Your task to perform on an android device: change the clock display to digital Image 0: 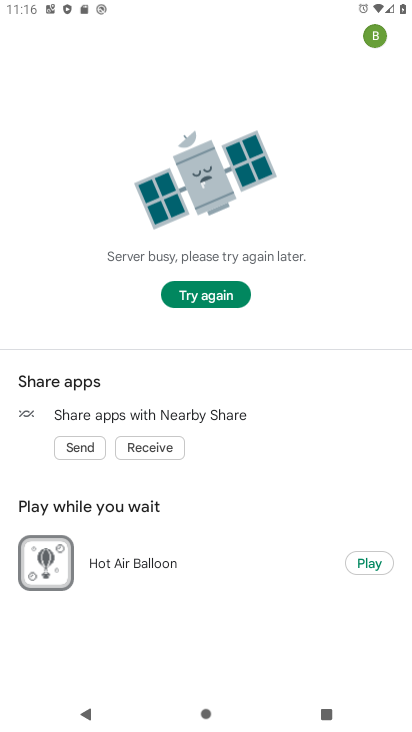
Step 0: press home button
Your task to perform on an android device: change the clock display to digital Image 1: 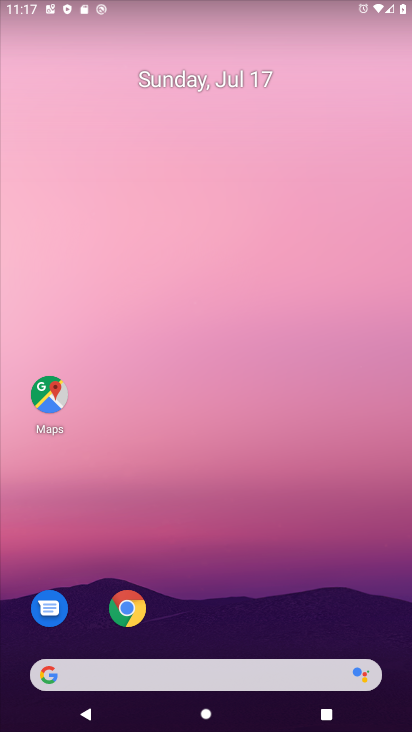
Step 1: drag from (229, 621) to (225, 7)
Your task to perform on an android device: change the clock display to digital Image 2: 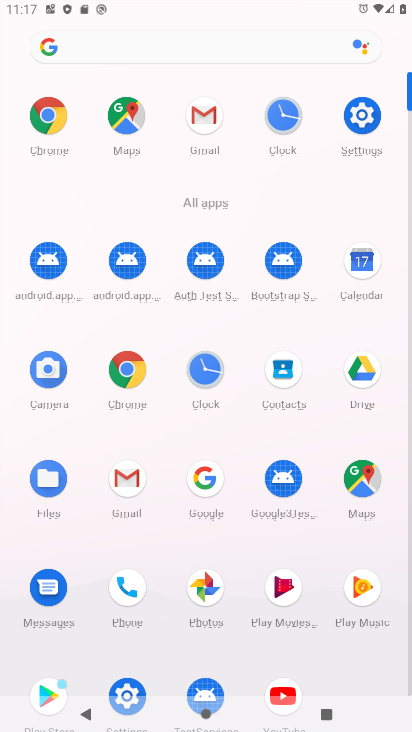
Step 2: click (220, 407)
Your task to perform on an android device: change the clock display to digital Image 3: 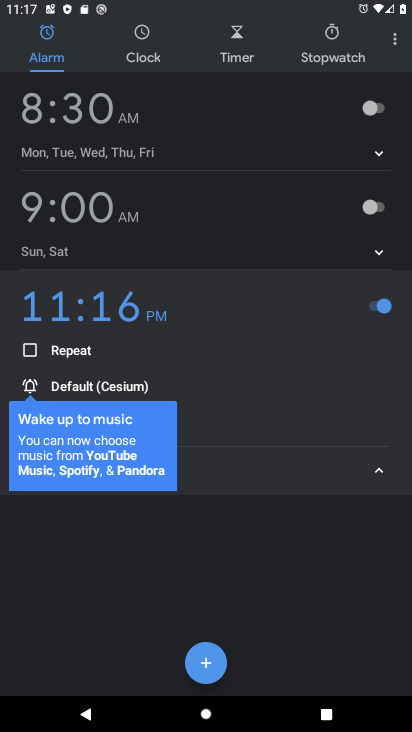
Step 3: drag from (398, 39) to (334, 73)
Your task to perform on an android device: change the clock display to digital Image 4: 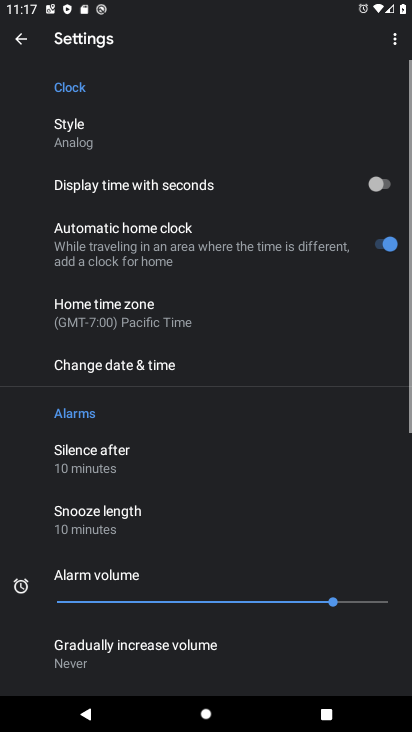
Step 4: click (83, 126)
Your task to perform on an android device: change the clock display to digital Image 5: 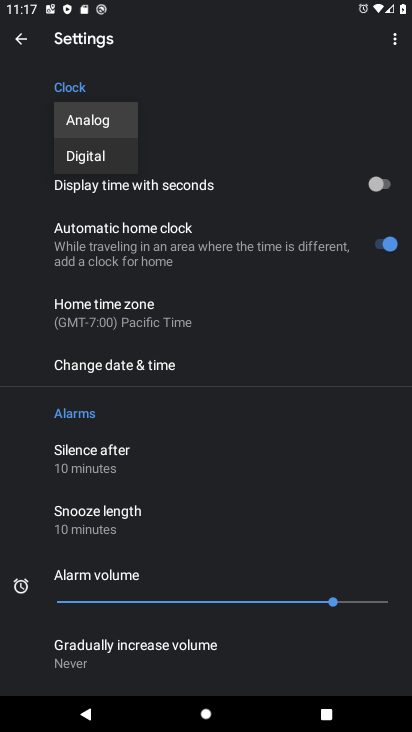
Step 5: click (97, 156)
Your task to perform on an android device: change the clock display to digital Image 6: 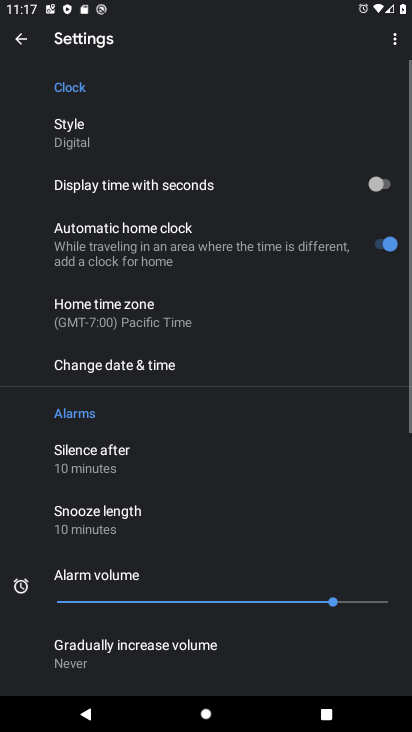
Step 6: task complete